Your task to perform on an android device: Open Wikipedia Image 0: 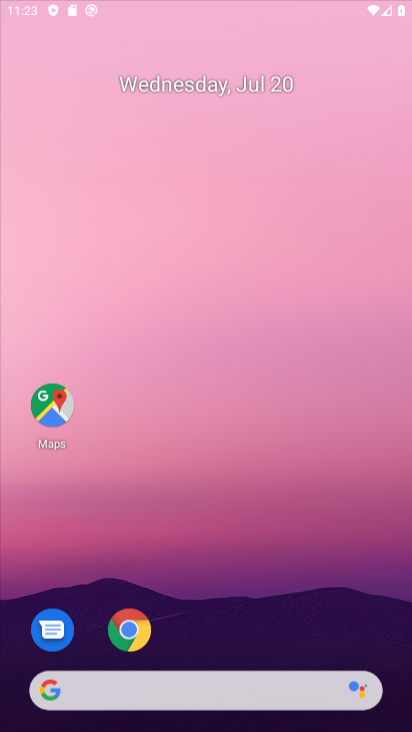
Step 0: drag from (221, 308) to (270, 152)
Your task to perform on an android device: Open Wikipedia Image 1: 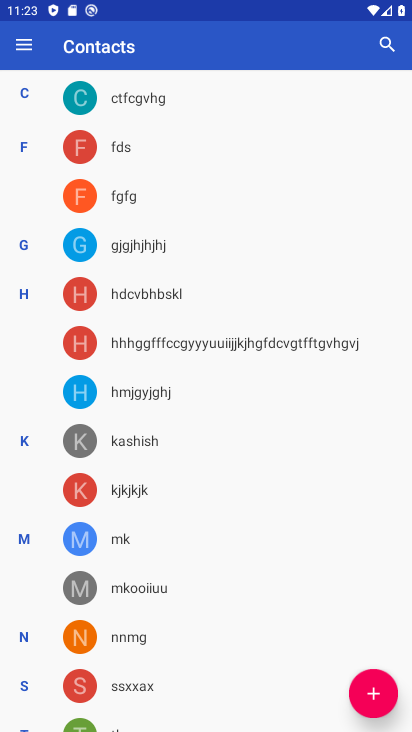
Step 1: press home button
Your task to perform on an android device: Open Wikipedia Image 2: 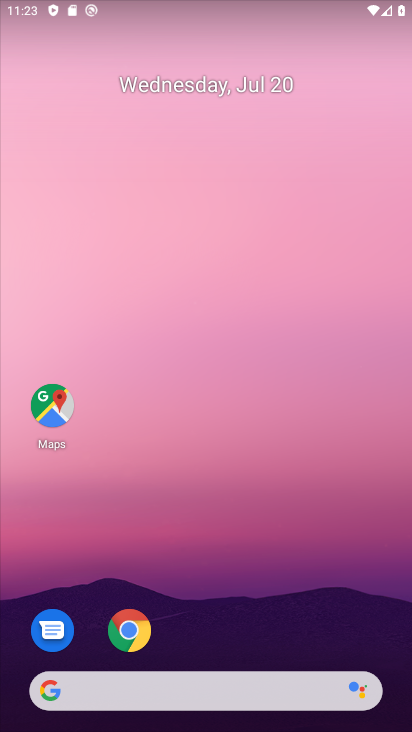
Step 2: click (82, 693)
Your task to perform on an android device: Open Wikipedia Image 3: 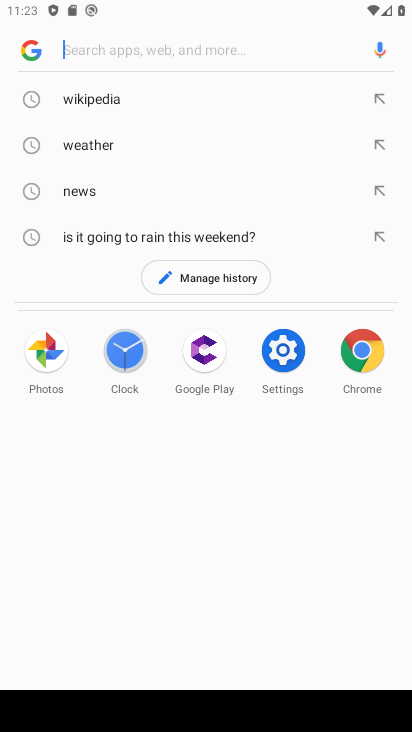
Step 3: click (94, 97)
Your task to perform on an android device: Open Wikipedia Image 4: 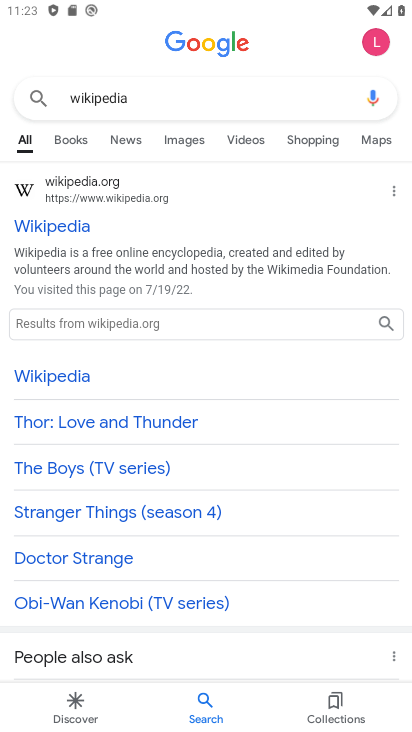
Step 4: task complete